Your task to perform on an android device: toggle airplane mode Image 0: 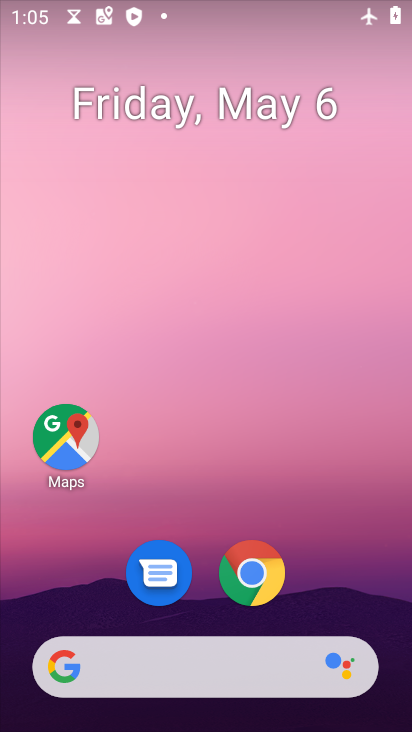
Step 0: drag from (298, 575) to (317, 306)
Your task to perform on an android device: toggle airplane mode Image 1: 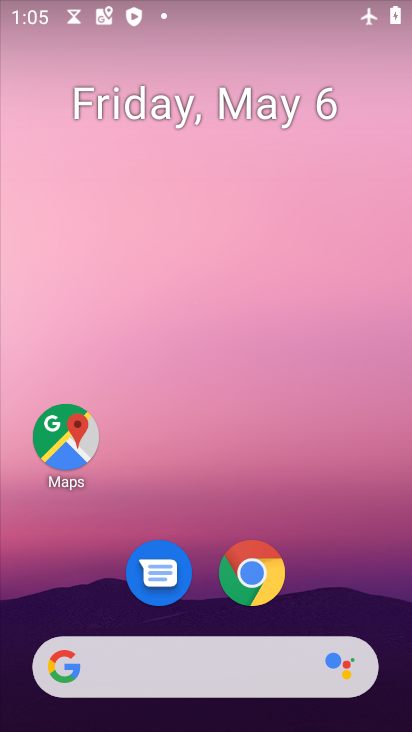
Step 1: drag from (309, 536) to (352, 196)
Your task to perform on an android device: toggle airplane mode Image 2: 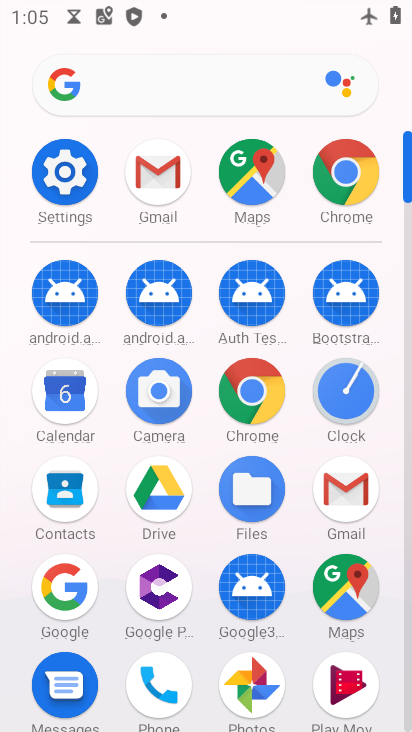
Step 2: click (50, 155)
Your task to perform on an android device: toggle airplane mode Image 3: 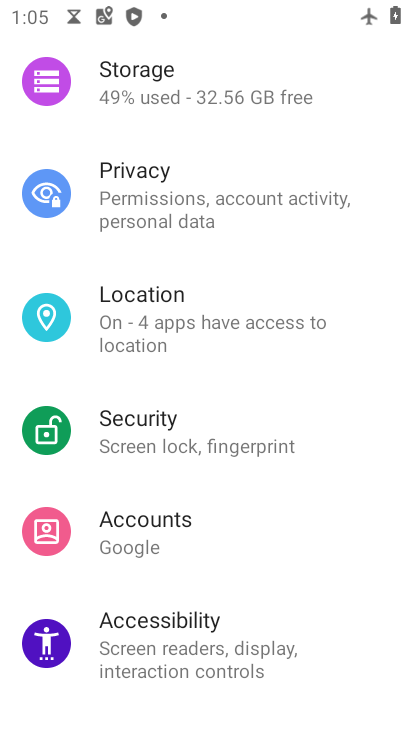
Step 3: drag from (266, 187) to (191, 610)
Your task to perform on an android device: toggle airplane mode Image 4: 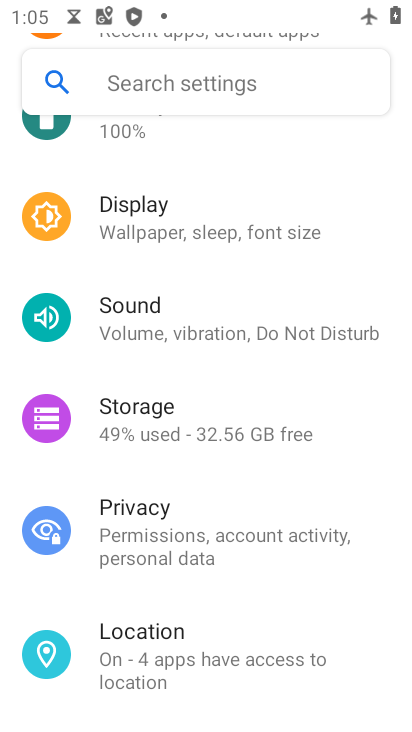
Step 4: drag from (243, 196) to (194, 570)
Your task to perform on an android device: toggle airplane mode Image 5: 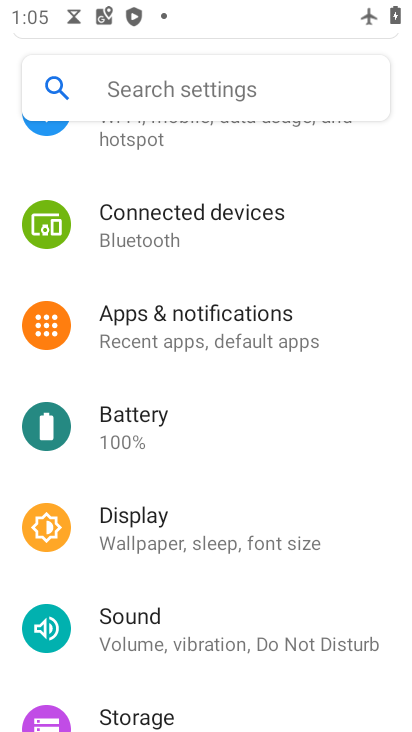
Step 5: drag from (231, 189) to (191, 483)
Your task to perform on an android device: toggle airplane mode Image 6: 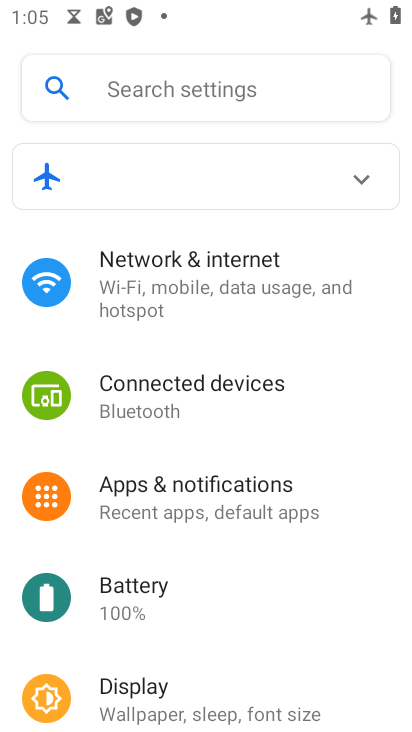
Step 6: click (228, 287)
Your task to perform on an android device: toggle airplane mode Image 7: 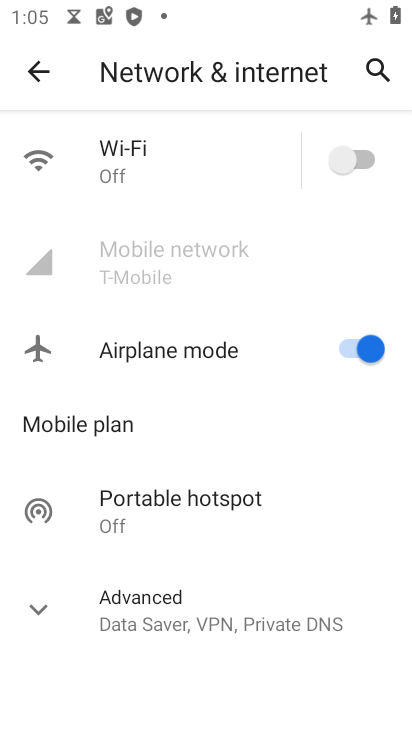
Step 7: click (340, 338)
Your task to perform on an android device: toggle airplane mode Image 8: 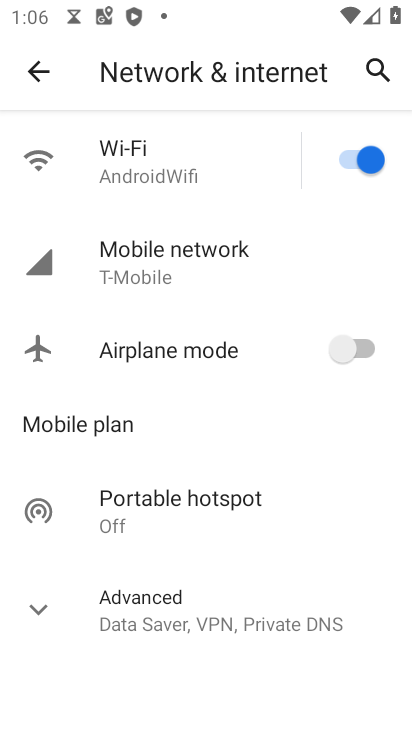
Step 8: task complete